Your task to perform on an android device: Go to settings Image 0: 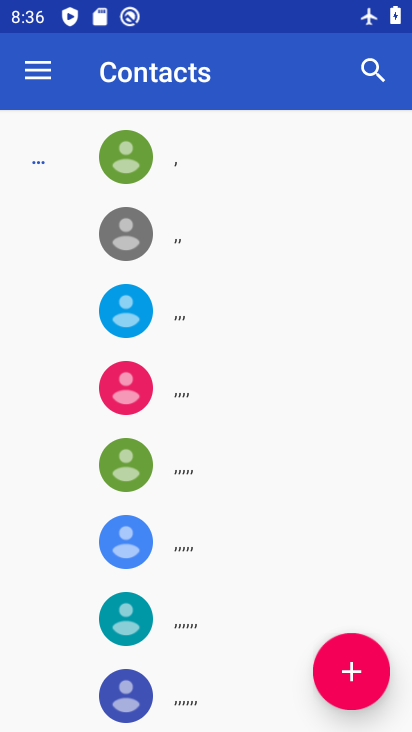
Step 0: press back button
Your task to perform on an android device: Go to settings Image 1: 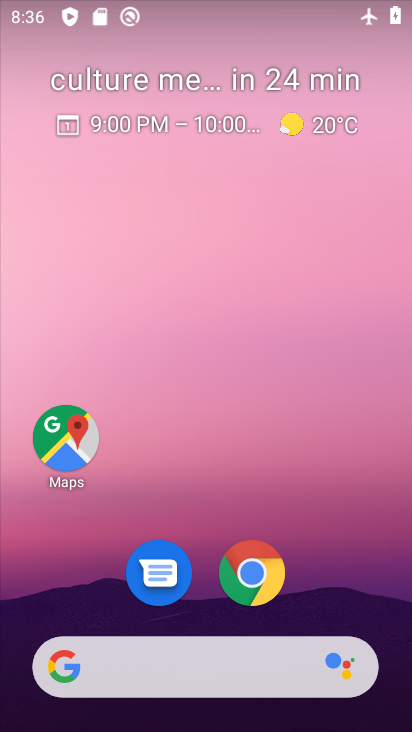
Step 1: drag from (271, 477) to (279, 4)
Your task to perform on an android device: Go to settings Image 2: 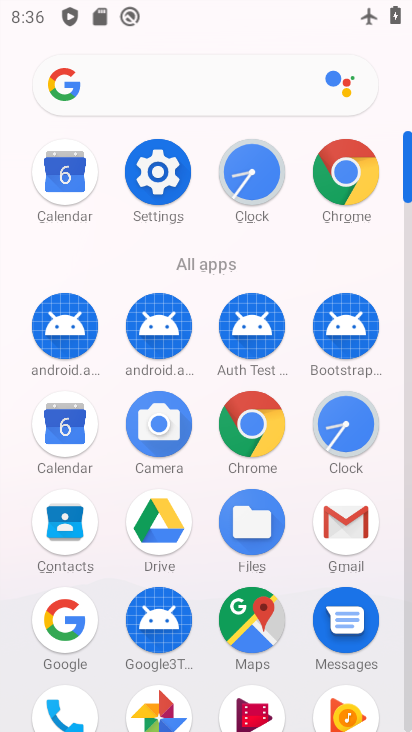
Step 2: click (157, 185)
Your task to perform on an android device: Go to settings Image 3: 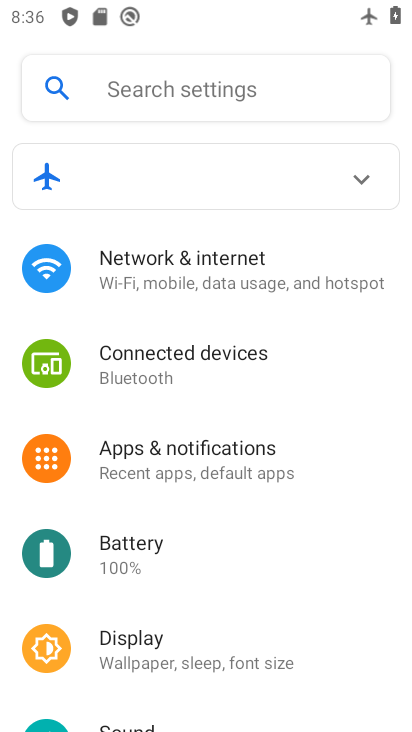
Step 3: task complete